Your task to perform on an android device: Open Google Image 0: 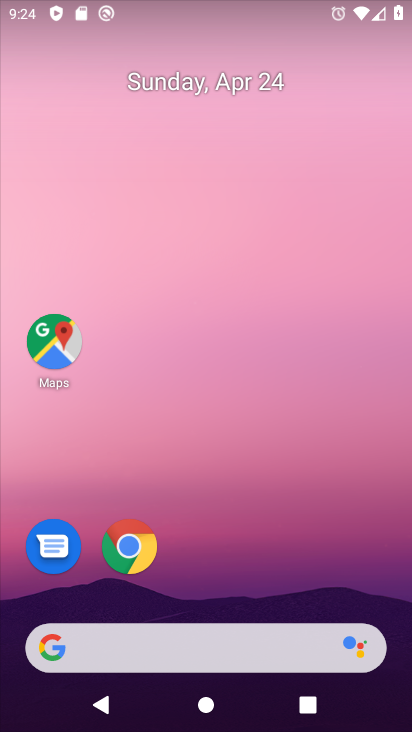
Step 0: drag from (255, 597) to (322, 72)
Your task to perform on an android device: Open Google Image 1: 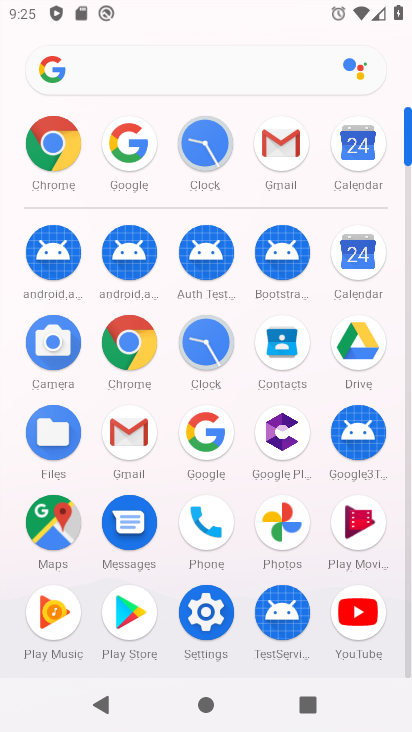
Step 1: click (202, 447)
Your task to perform on an android device: Open Google Image 2: 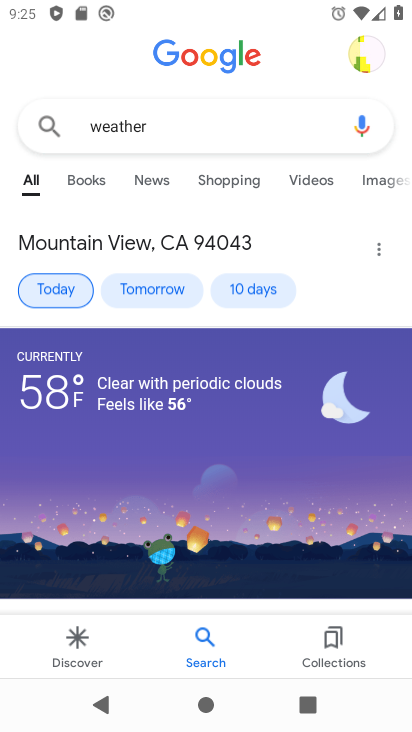
Step 2: task complete